Your task to perform on an android device: When is my next meeting? Image 0: 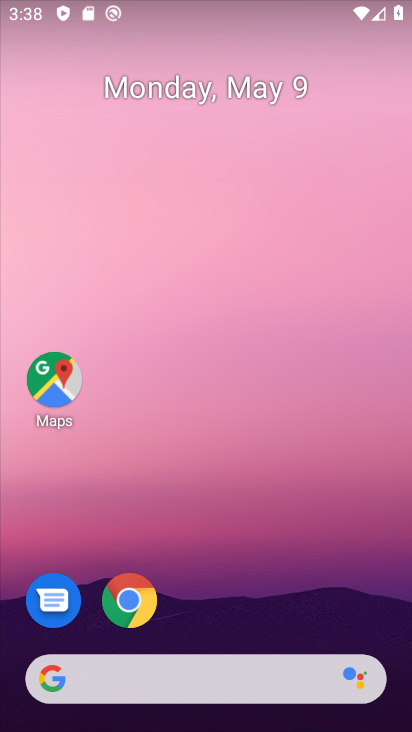
Step 0: drag from (283, 632) to (260, 3)
Your task to perform on an android device: When is my next meeting? Image 1: 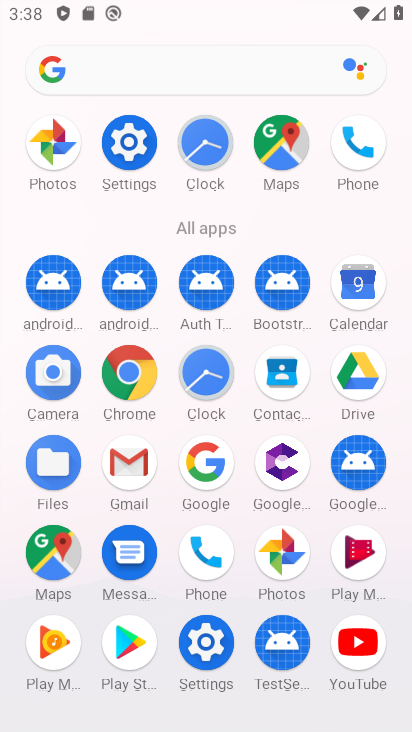
Step 1: click (137, 369)
Your task to perform on an android device: When is my next meeting? Image 2: 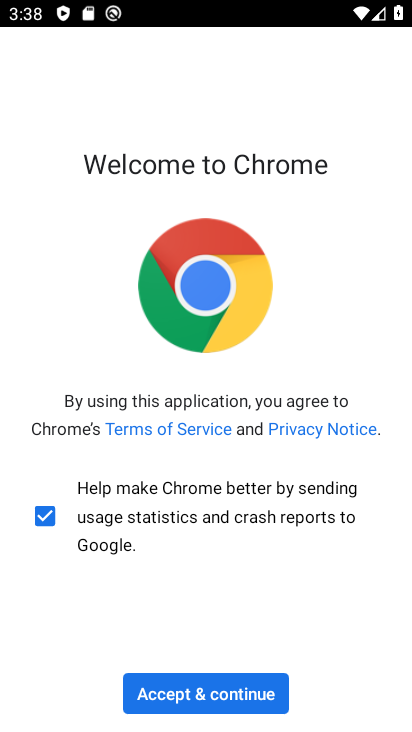
Step 2: press home button
Your task to perform on an android device: When is my next meeting? Image 3: 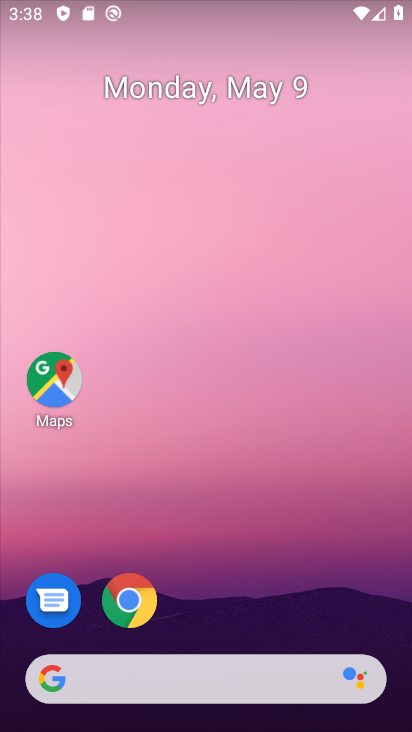
Step 3: drag from (295, 656) to (325, 38)
Your task to perform on an android device: When is my next meeting? Image 4: 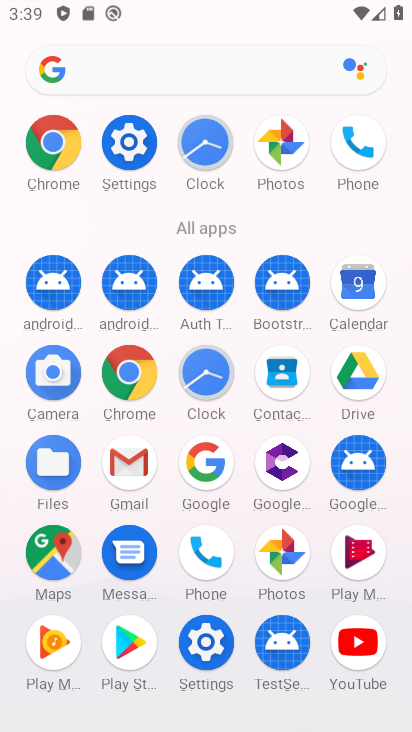
Step 4: click (366, 304)
Your task to perform on an android device: When is my next meeting? Image 5: 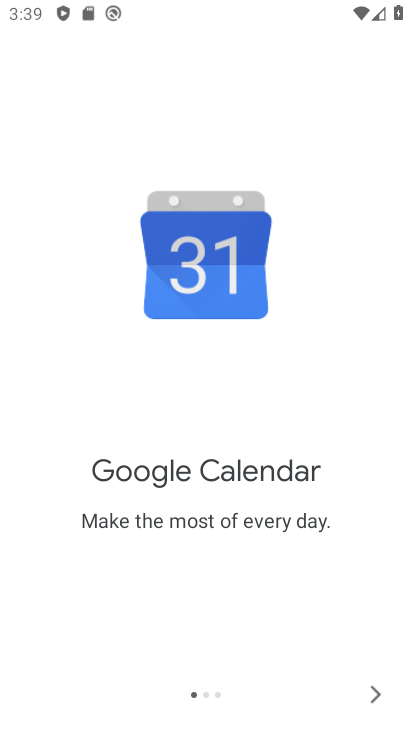
Step 5: click (378, 688)
Your task to perform on an android device: When is my next meeting? Image 6: 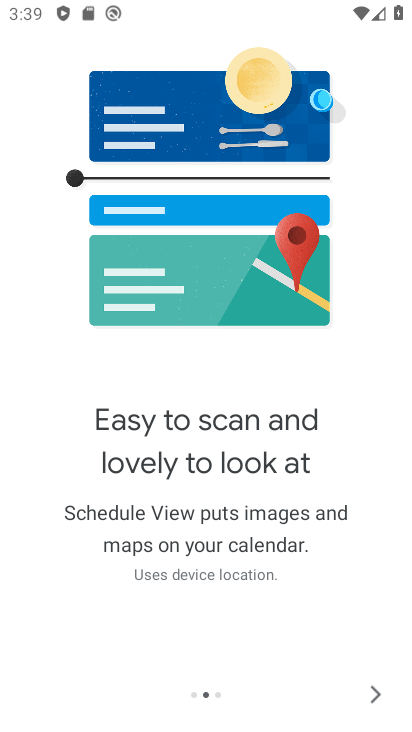
Step 6: click (378, 688)
Your task to perform on an android device: When is my next meeting? Image 7: 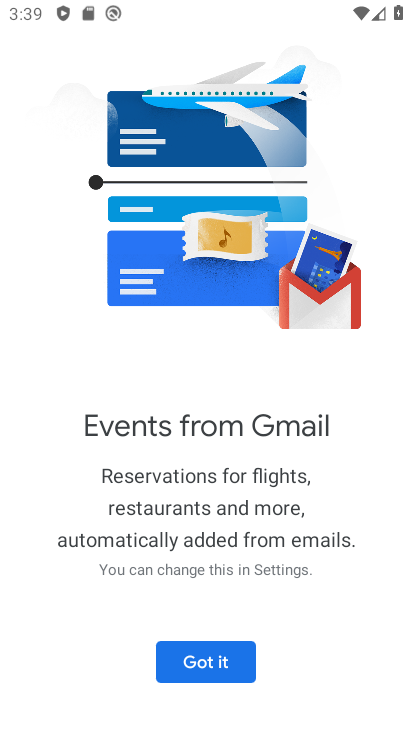
Step 7: click (211, 668)
Your task to perform on an android device: When is my next meeting? Image 8: 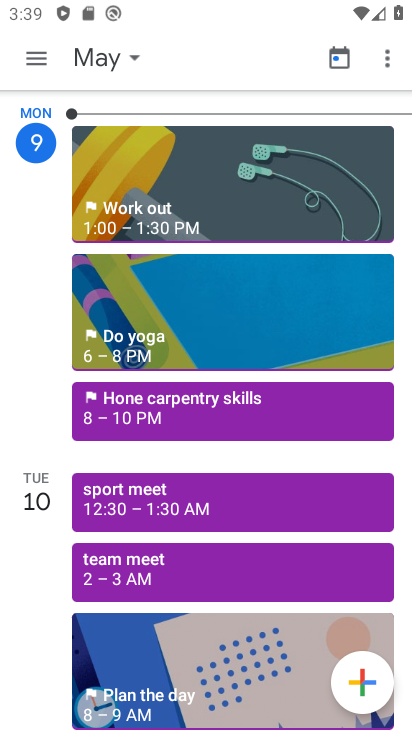
Step 8: click (128, 58)
Your task to perform on an android device: When is my next meeting? Image 9: 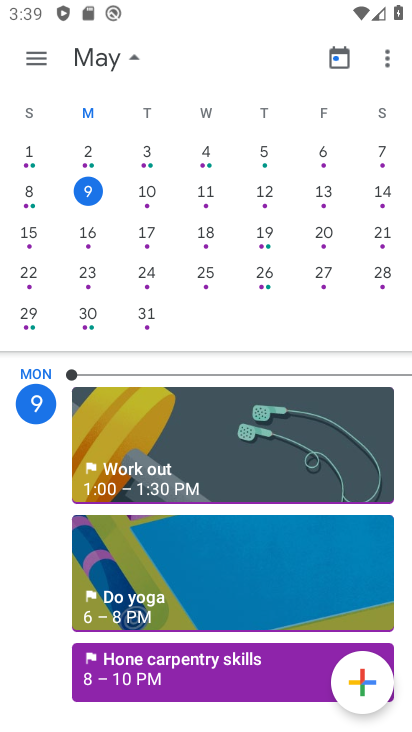
Step 9: task complete